Your task to perform on an android device: Is it going to rain tomorrow? Image 0: 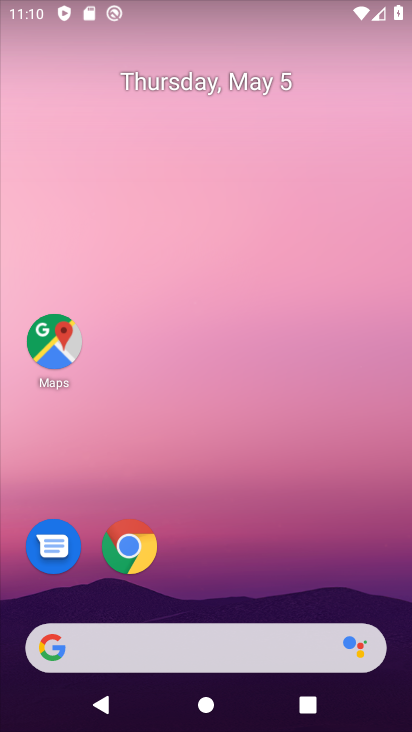
Step 0: click (228, 638)
Your task to perform on an android device: Is it going to rain tomorrow? Image 1: 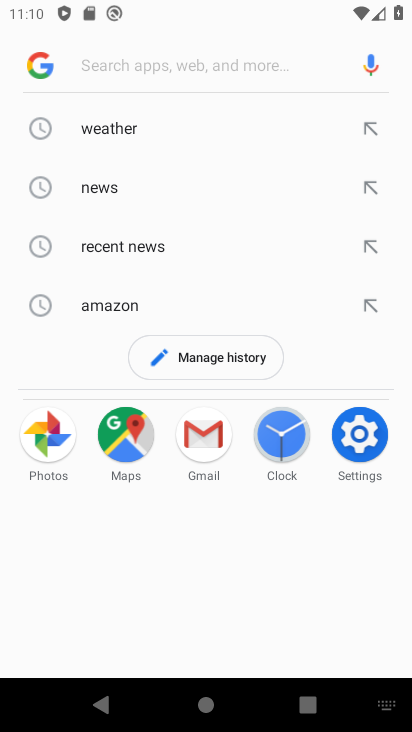
Step 1: click (101, 118)
Your task to perform on an android device: Is it going to rain tomorrow? Image 2: 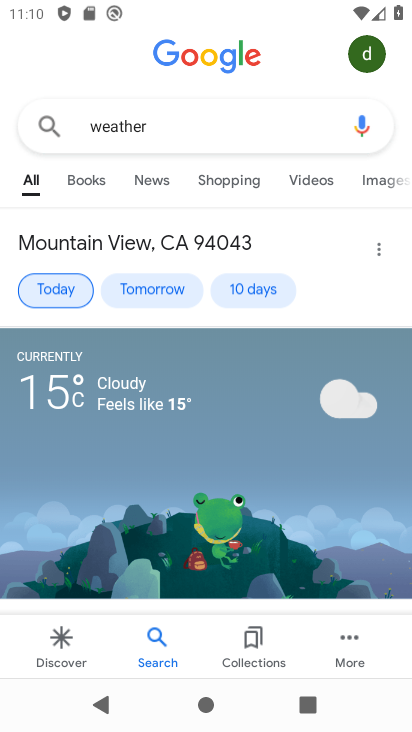
Step 2: click (150, 286)
Your task to perform on an android device: Is it going to rain tomorrow? Image 3: 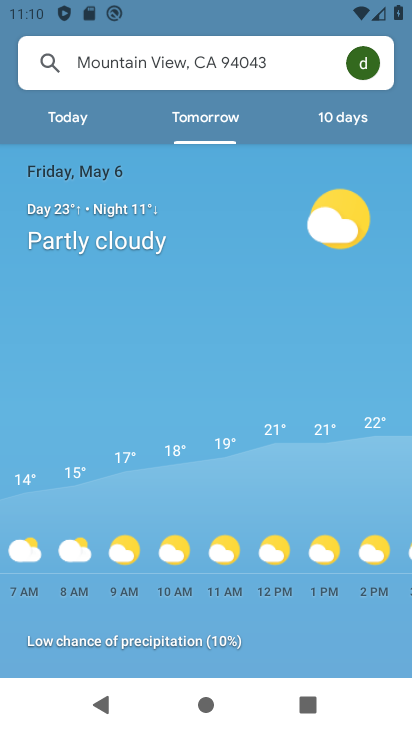
Step 3: task complete